Your task to perform on an android device: Search for vegetarian restaurants on Maps Image 0: 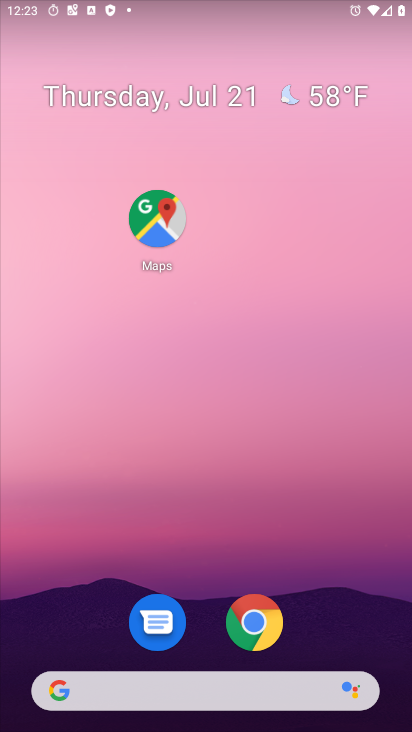
Step 0: click (159, 223)
Your task to perform on an android device: Search for vegetarian restaurants on Maps Image 1: 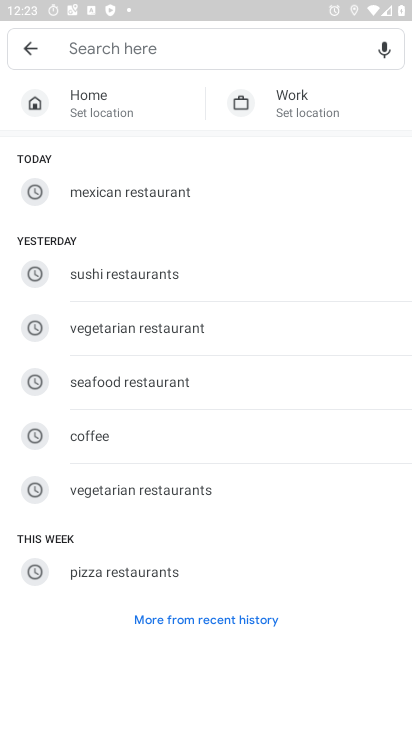
Step 1: click (121, 325)
Your task to perform on an android device: Search for vegetarian restaurants on Maps Image 2: 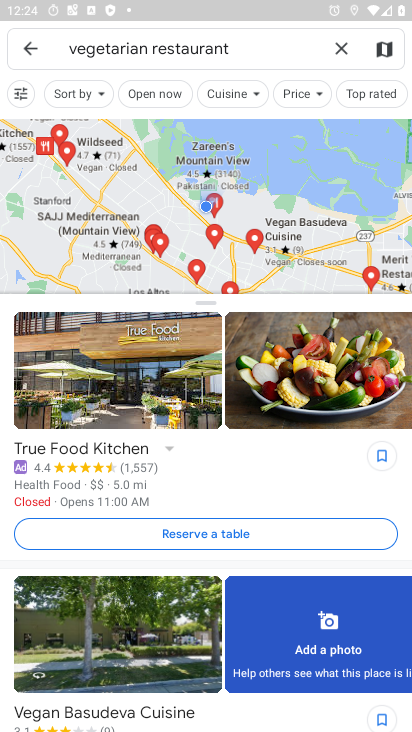
Step 2: task complete